Your task to perform on an android device: Open calendar and show me the third week of next month Image 0: 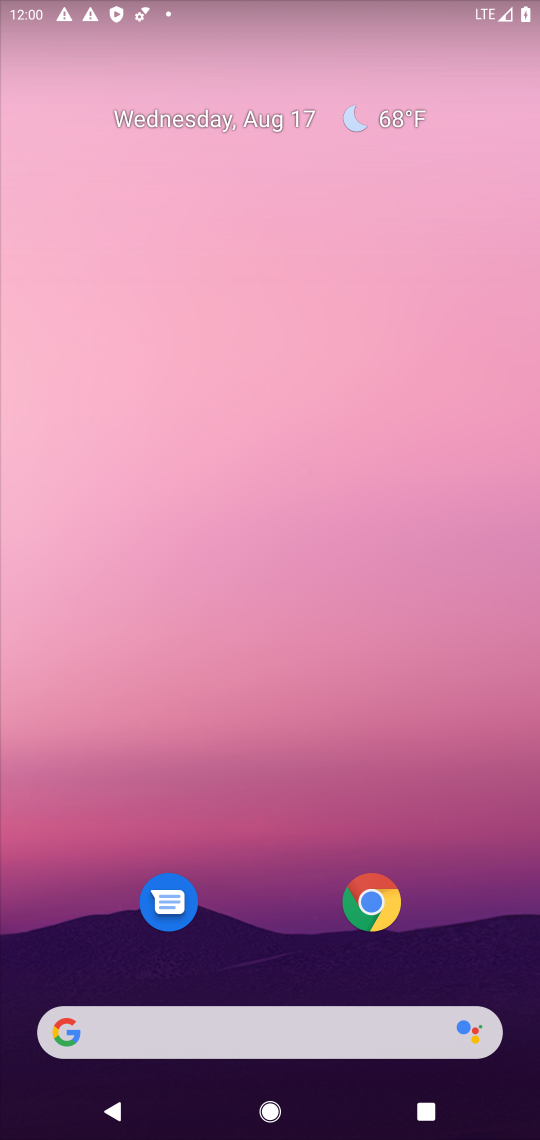
Step 0: drag from (301, 866) to (266, 0)
Your task to perform on an android device: Open calendar and show me the third week of next month Image 1: 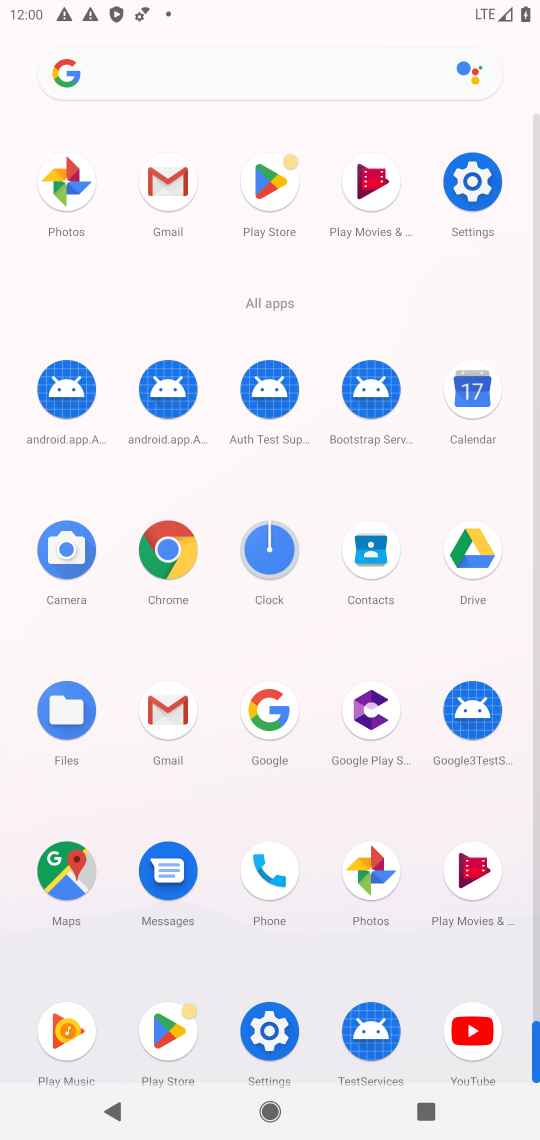
Step 1: click (475, 406)
Your task to perform on an android device: Open calendar and show me the third week of next month Image 2: 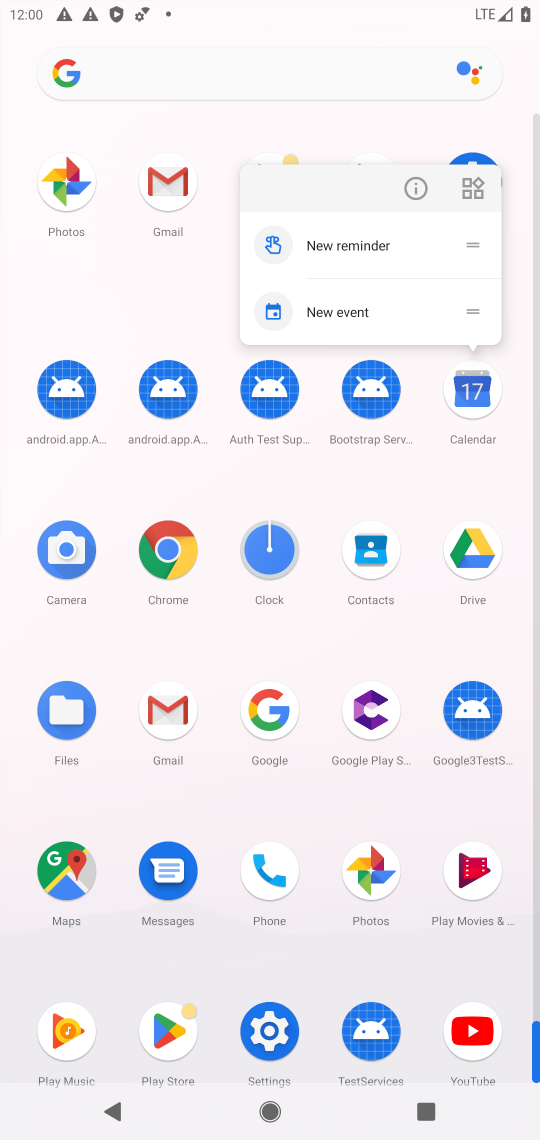
Step 2: click (472, 410)
Your task to perform on an android device: Open calendar and show me the third week of next month Image 3: 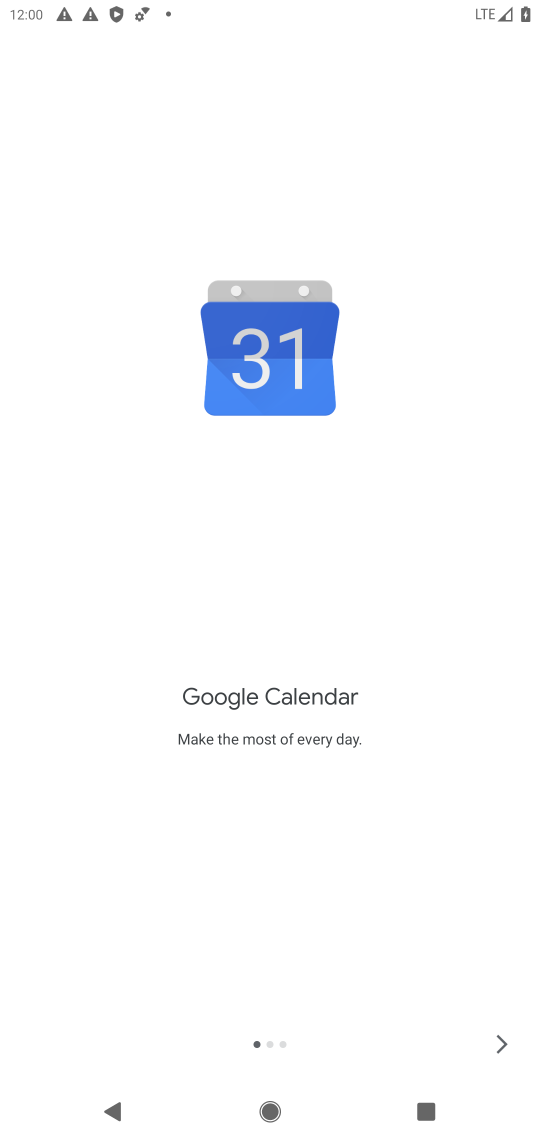
Step 3: click (498, 1038)
Your task to perform on an android device: Open calendar and show me the third week of next month Image 4: 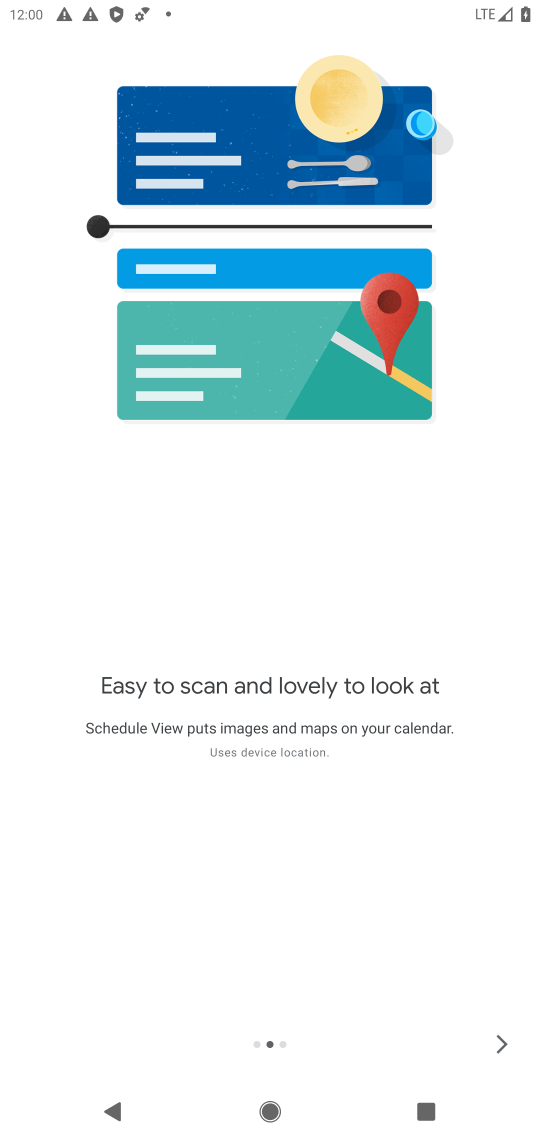
Step 4: click (498, 1038)
Your task to perform on an android device: Open calendar and show me the third week of next month Image 5: 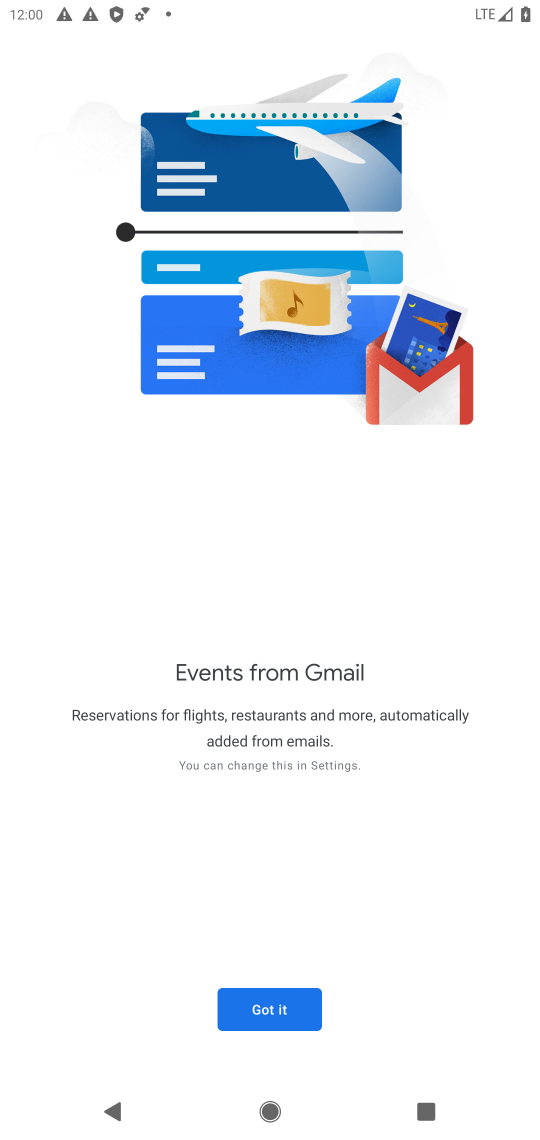
Step 5: click (286, 1003)
Your task to perform on an android device: Open calendar and show me the third week of next month Image 6: 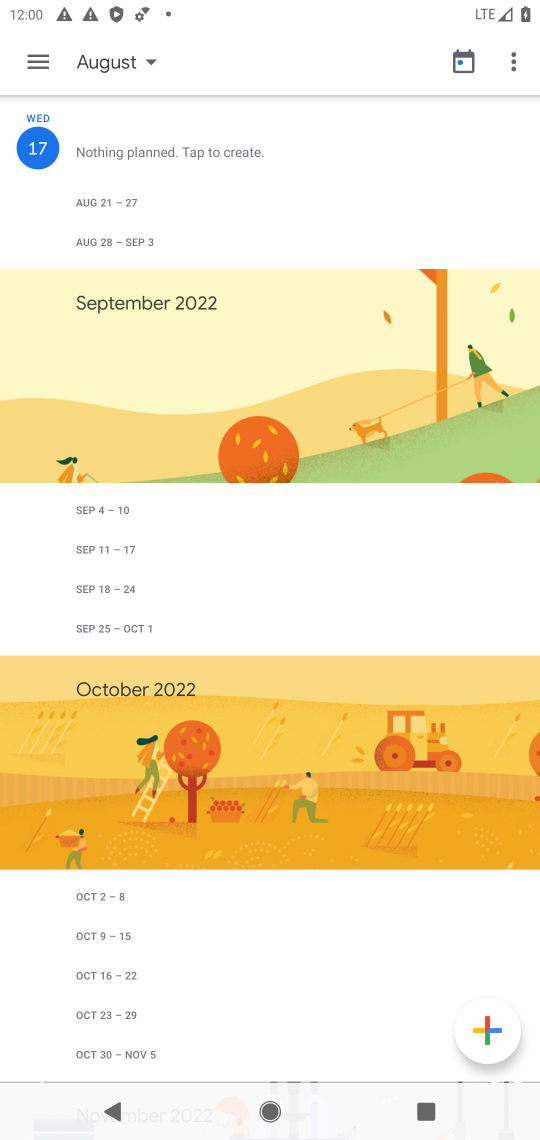
Step 6: click (117, 53)
Your task to perform on an android device: Open calendar and show me the third week of next month Image 7: 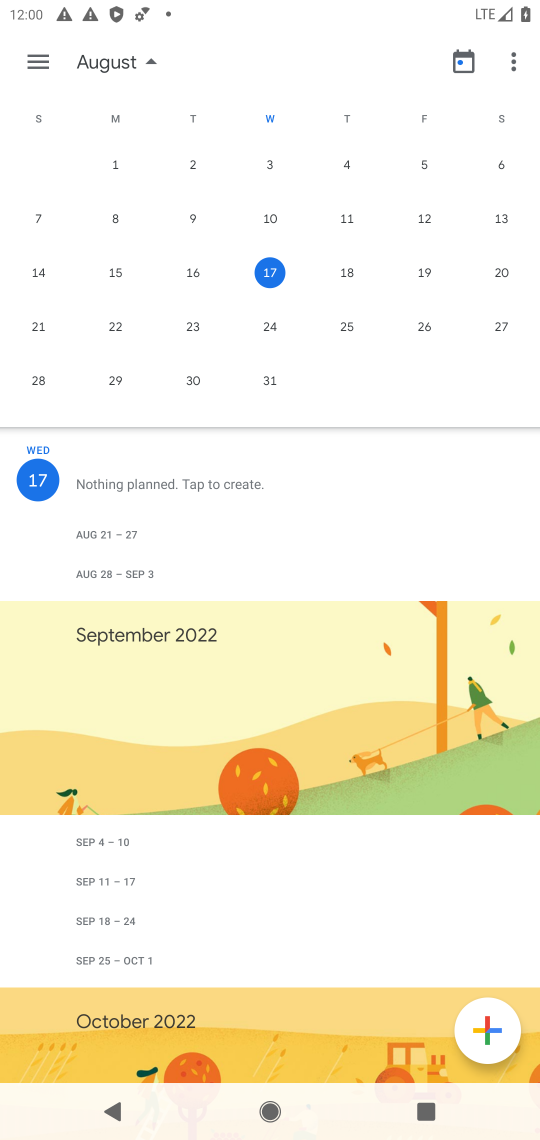
Step 7: drag from (388, 315) to (5, 238)
Your task to perform on an android device: Open calendar and show me the third week of next month Image 8: 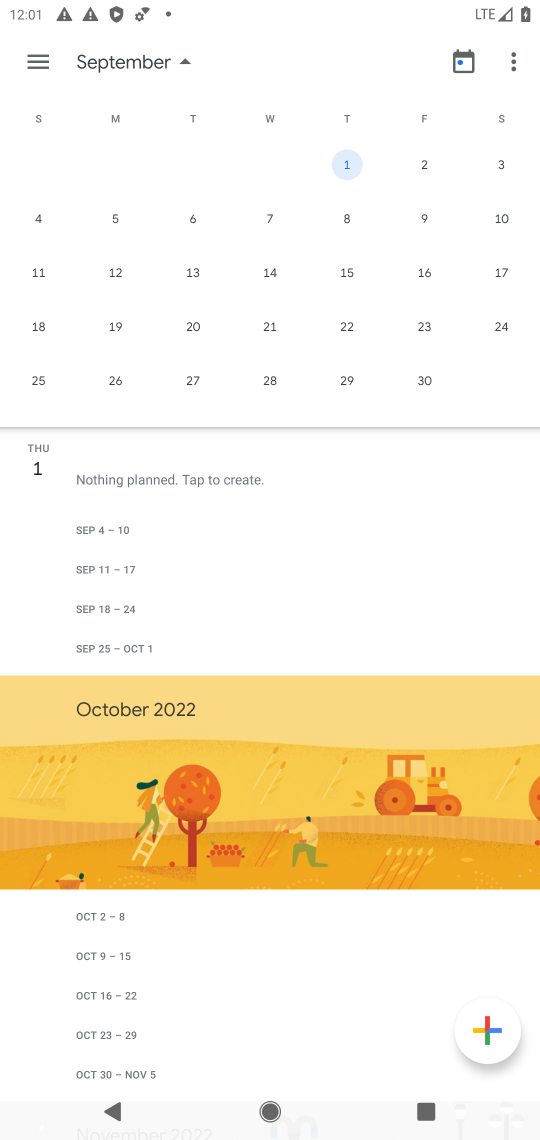
Step 8: click (275, 332)
Your task to perform on an android device: Open calendar and show me the third week of next month Image 9: 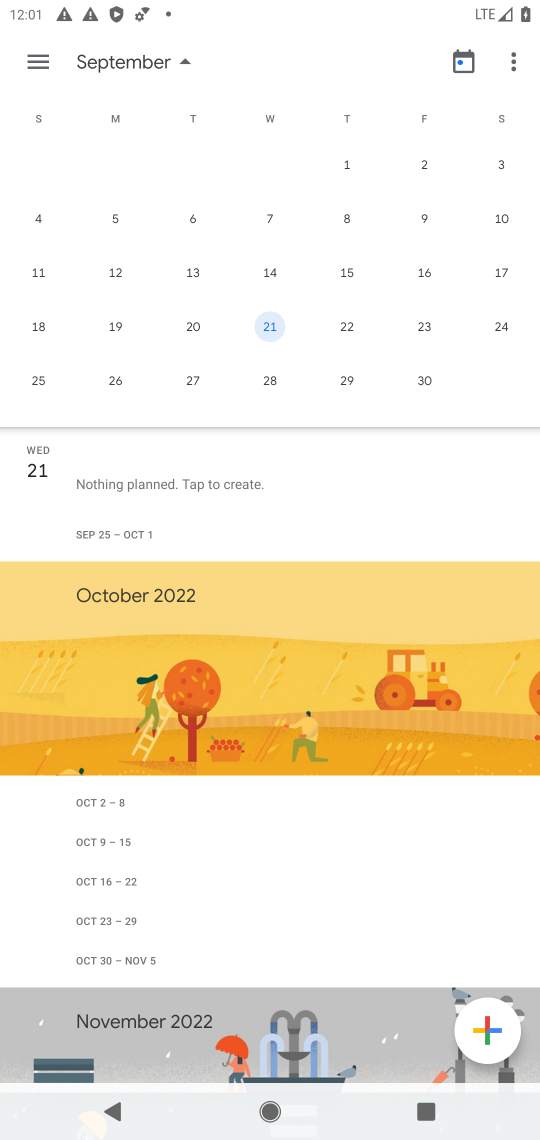
Step 9: click (37, 56)
Your task to perform on an android device: Open calendar and show me the third week of next month Image 10: 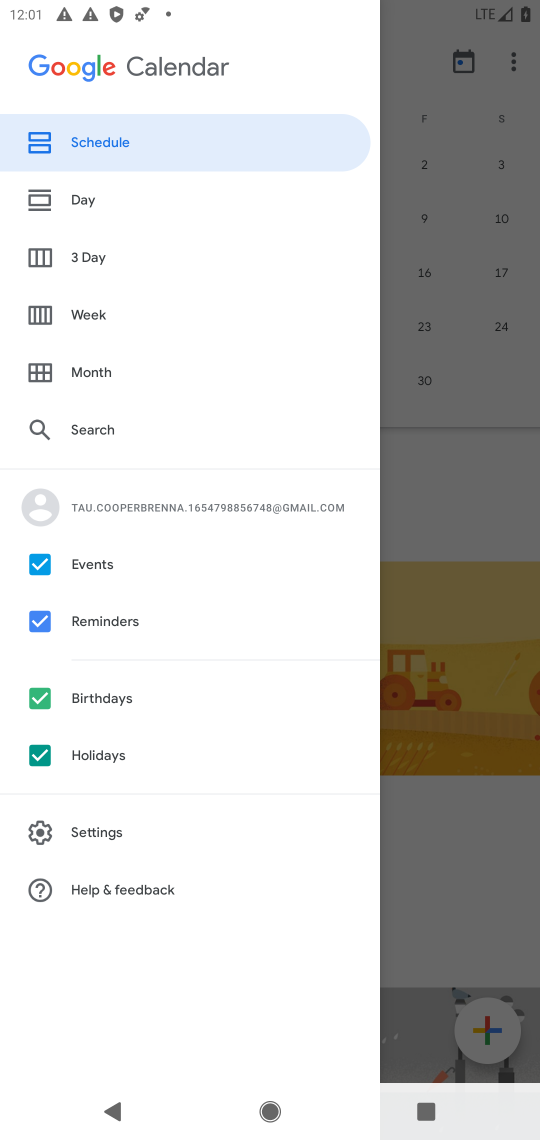
Step 10: click (98, 315)
Your task to perform on an android device: Open calendar and show me the third week of next month Image 11: 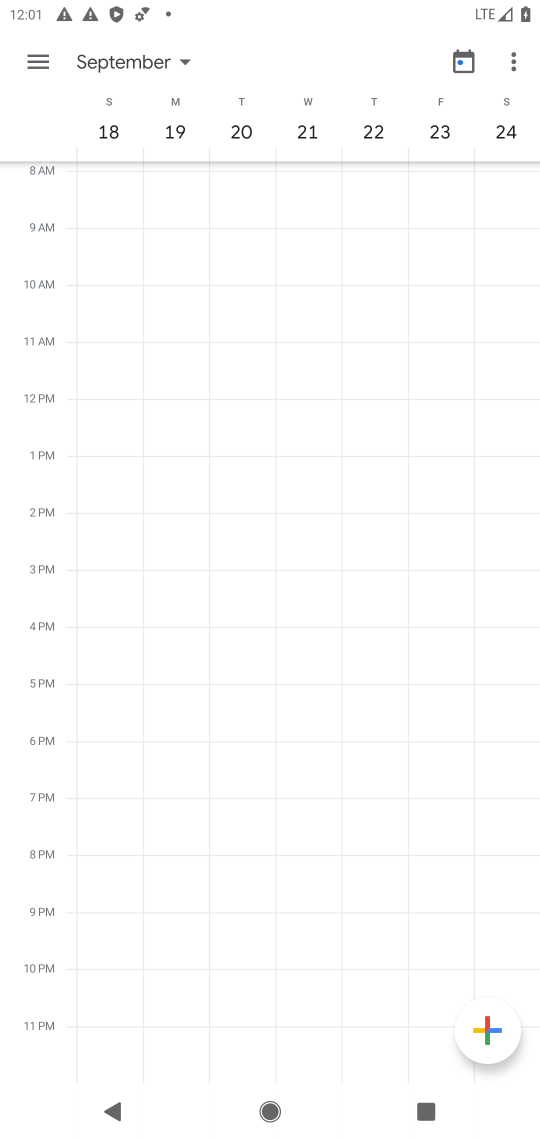
Step 11: task complete